Your task to perform on an android device: Open battery settings Image 0: 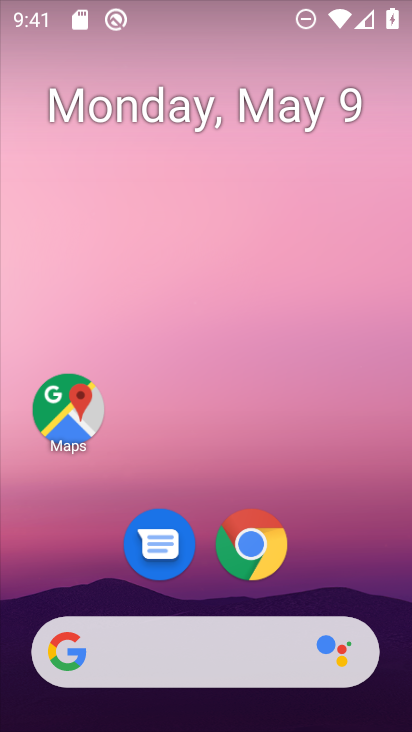
Step 0: drag from (319, 570) to (184, 114)
Your task to perform on an android device: Open battery settings Image 1: 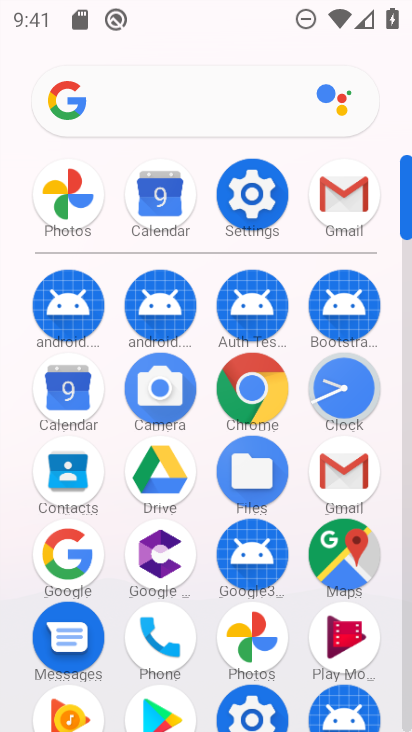
Step 1: click (256, 190)
Your task to perform on an android device: Open battery settings Image 2: 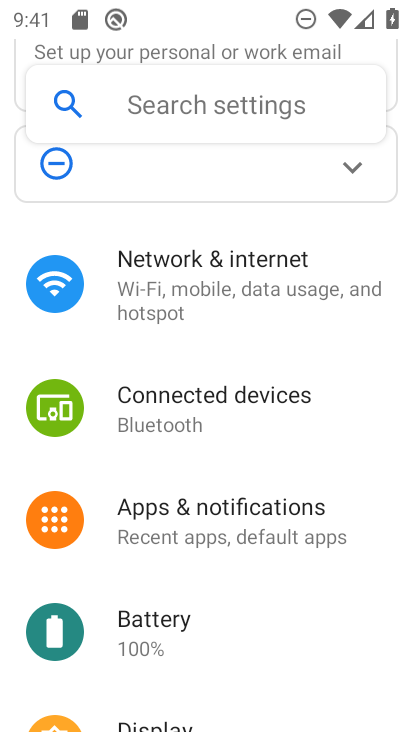
Step 2: click (158, 617)
Your task to perform on an android device: Open battery settings Image 3: 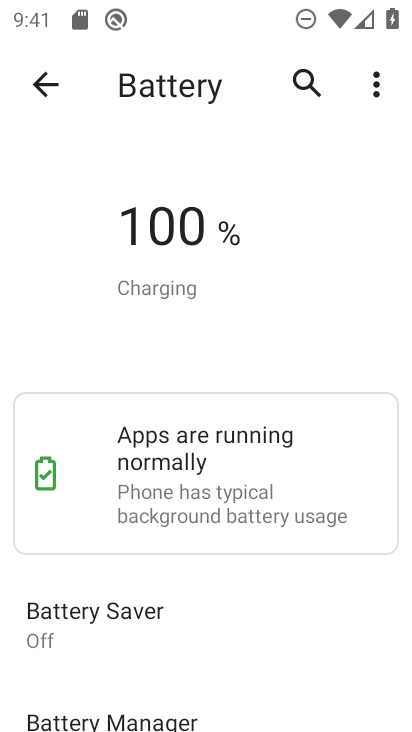
Step 3: task complete